Your task to perform on an android device: Empty the shopping cart on costco. Image 0: 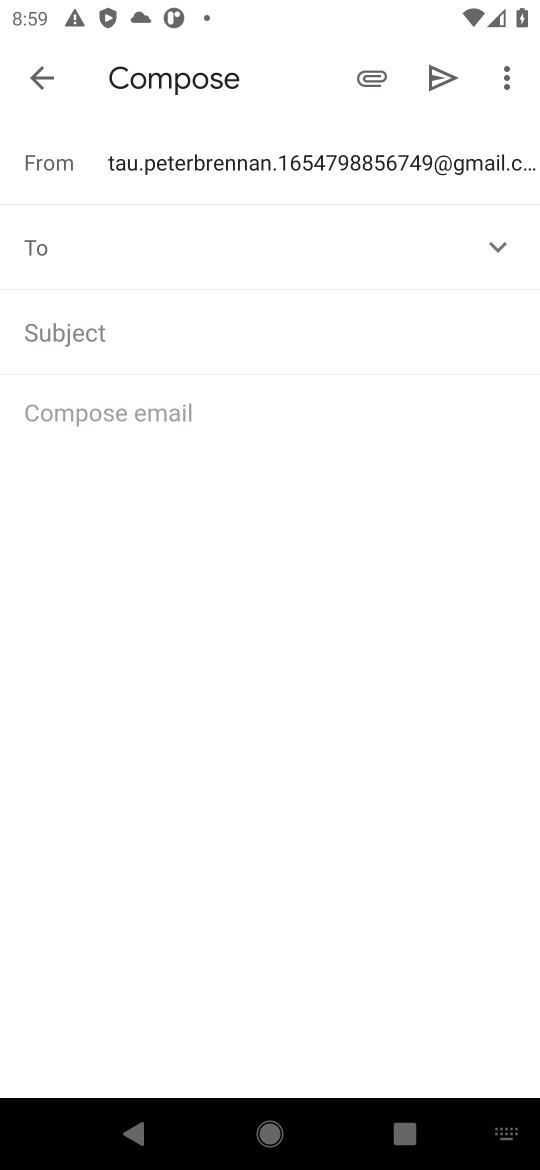
Step 0: press home button
Your task to perform on an android device: Empty the shopping cart on costco. Image 1: 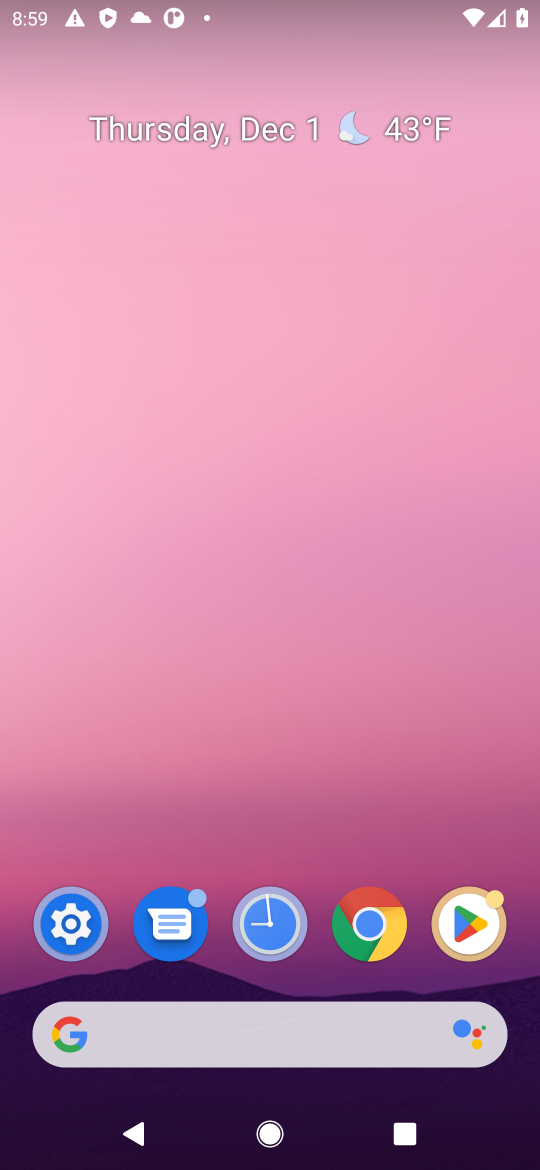
Step 1: click (289, 1015)
Your task to perform on an android device: Empty the shopping cart on costco. Image 2: 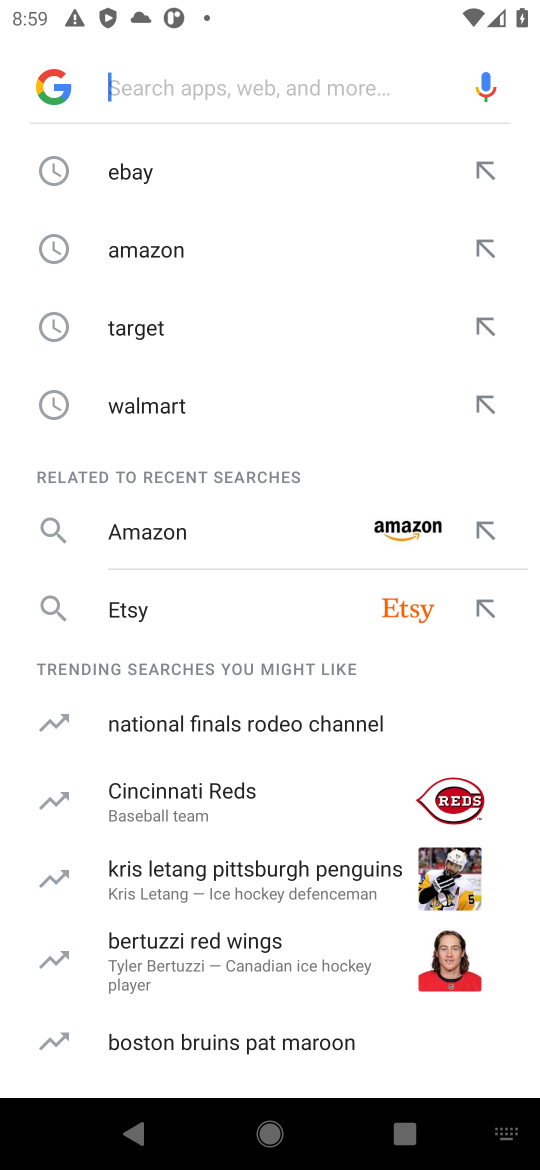
Step 2: type "co"
Your task to perform on an android device: Empty the shopping cart on costco. Image 3: 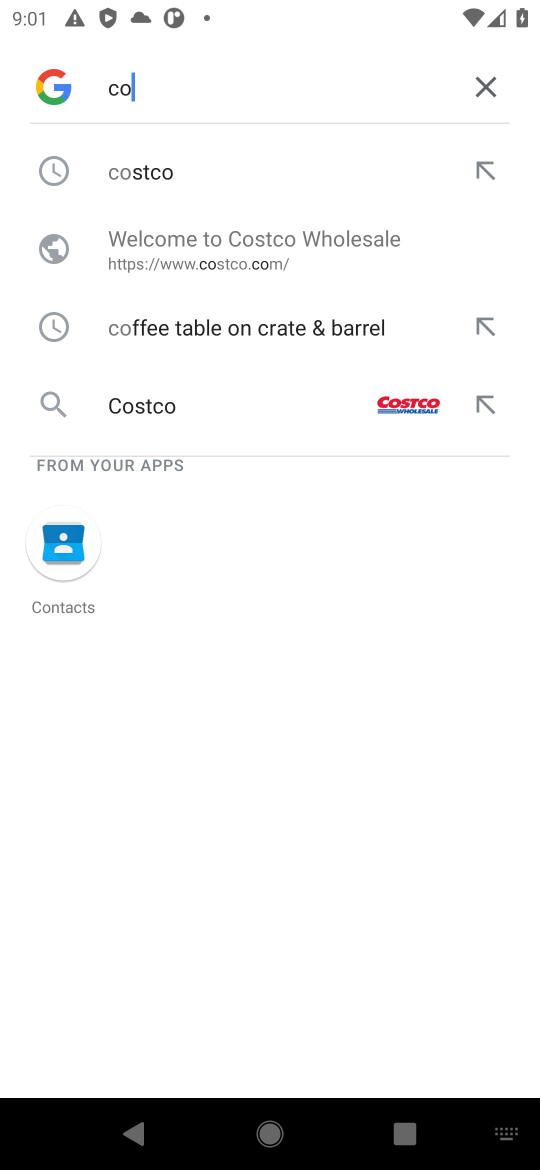
Step 3: click (208, 411)
Your task to perform on an android device: Empty the shopping cart on costco. Image 4: 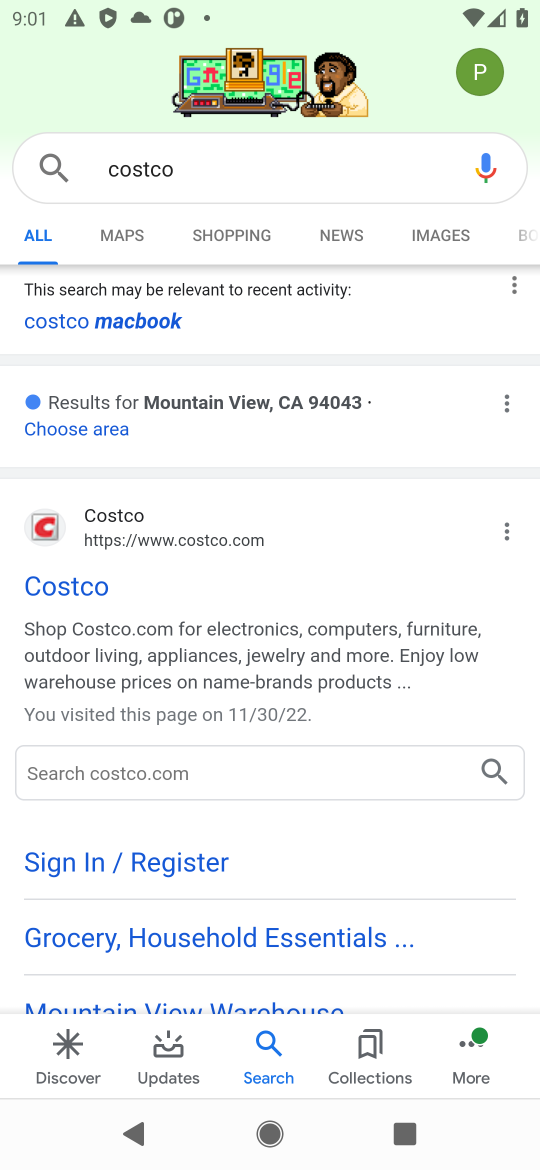
Step 4: click (168, 526)
Your task to perform on an android device: Empty the shopping cart on costco. Image 5: 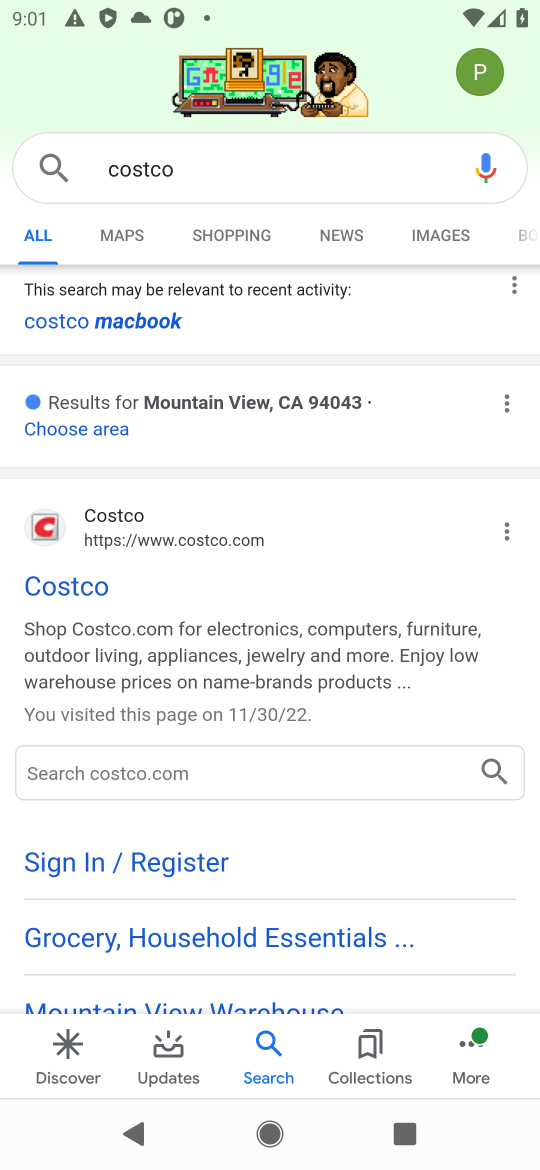
Step 5: task complete